Your task to perform on an android device: change the clock display to show seconds Image 0: 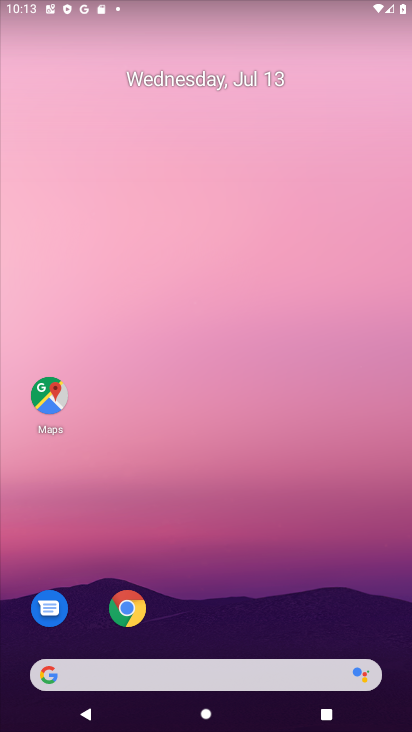
Step 0: drag from (181, 673) to (158, 140)
Your task to perform on an android device: change the clock display to show seconds Image 1: 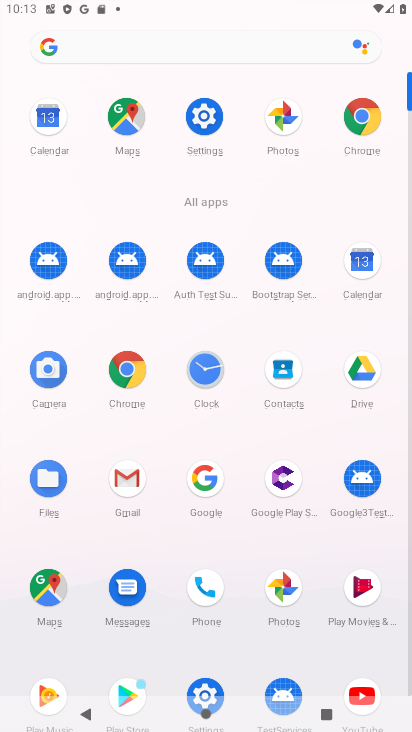
Step 1: click (206, 371)
Your task to perform on an android device: change the clock display to show seconds Image 2: 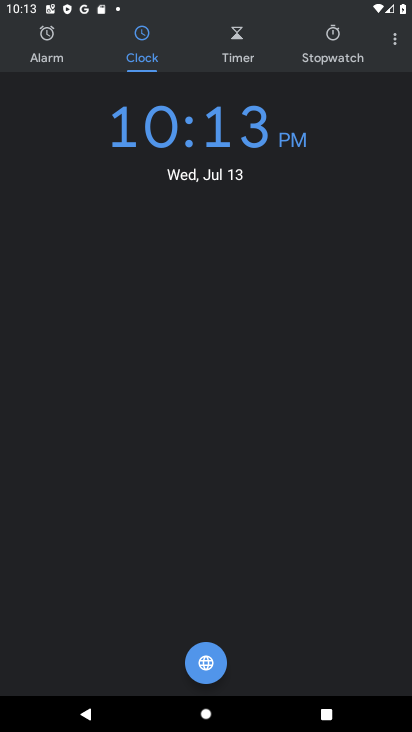
Step 2: click (396, 39)
Your task to perform on an android device: change the clock display to show seconds Image 3: 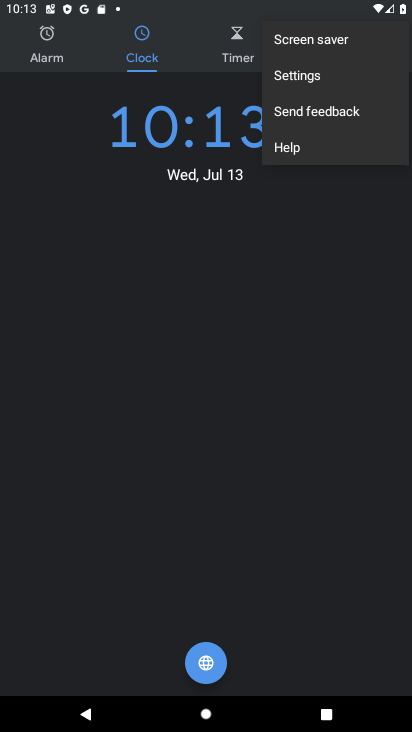
Step 3: click (315, 73)
Your task to perform on an android device: change the clock display to show seconds Image 4: 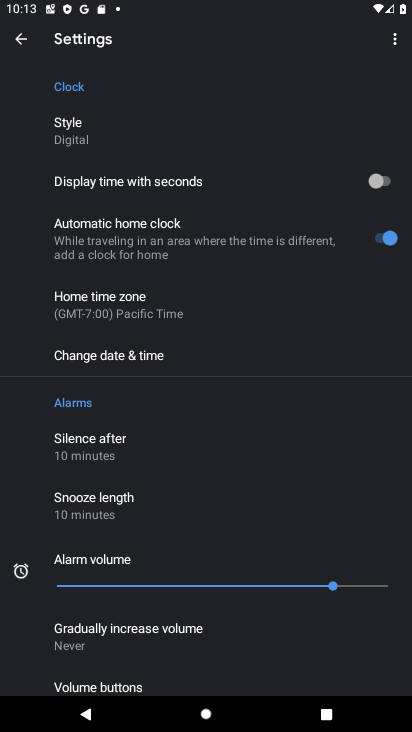
Step 4: click (373, 183)
Your task to perform on an android device: change the clock display to show seconds Image 5: 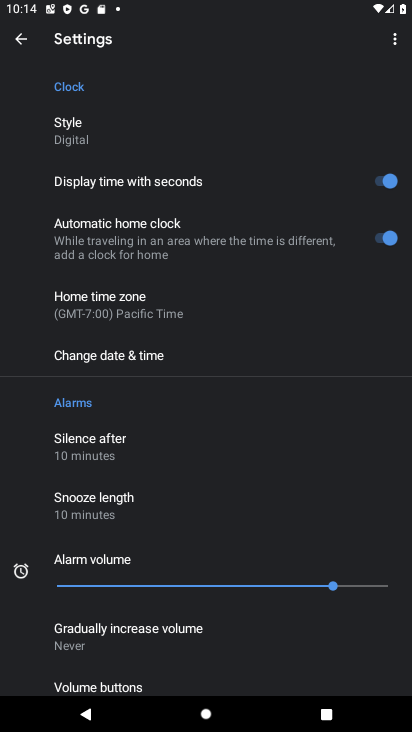
Step 5: task complete